Your task to perform on an android device: empty trash in the gmail app Image 0: 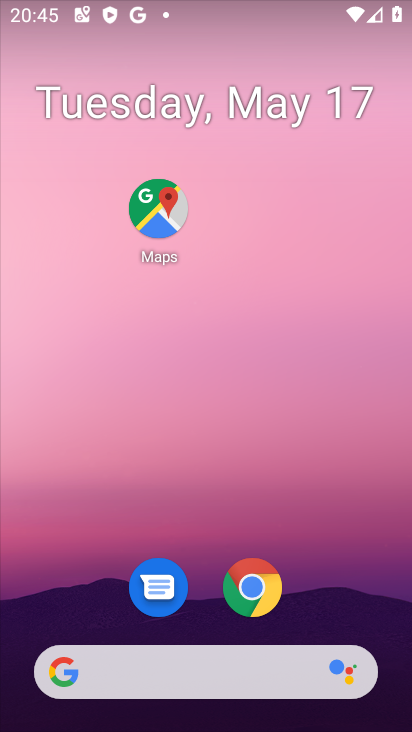
Step 0: drag from (7, 720) to (215, 261)
Your task to perform on an android device: empty trash in the gmail app Image 1: 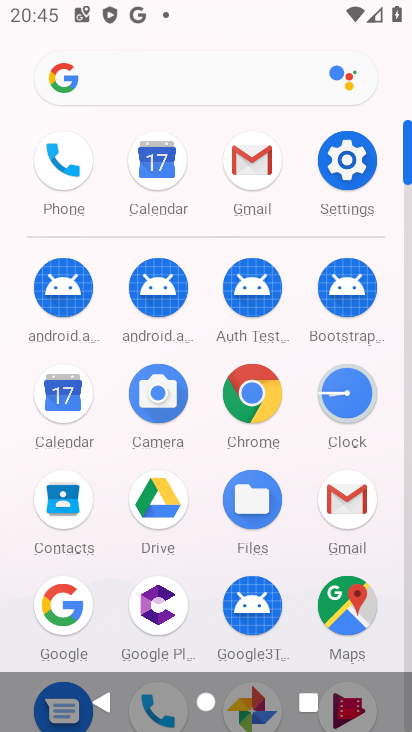
Step 1: click (245, 164)
Your task to perform on an android device: empty trash in the gmail app Image 2: 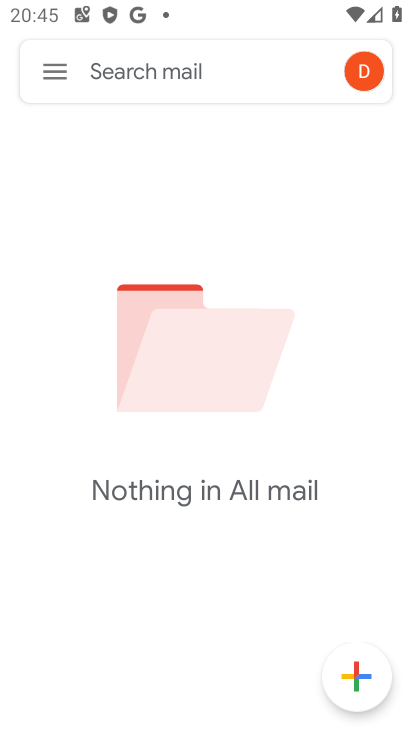
Step 2: click (41, 76)
Your task to perform on an android device: empty trash in the gmail app Image 3: 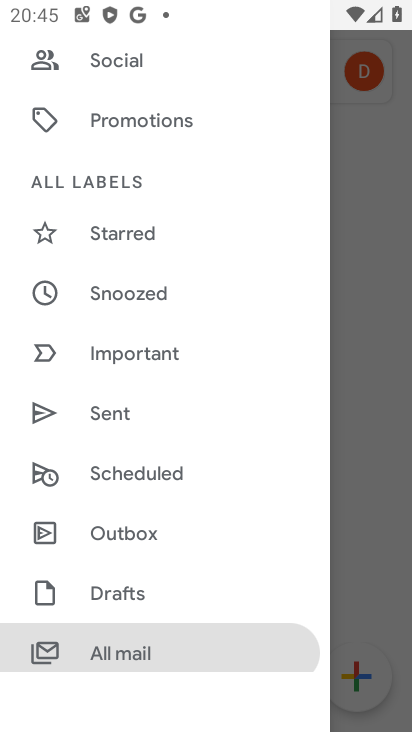
Step 3: drag from (179, 87) to (71, 629)
Your task to perform on an android device: empty trash in the gmail app Image 4: 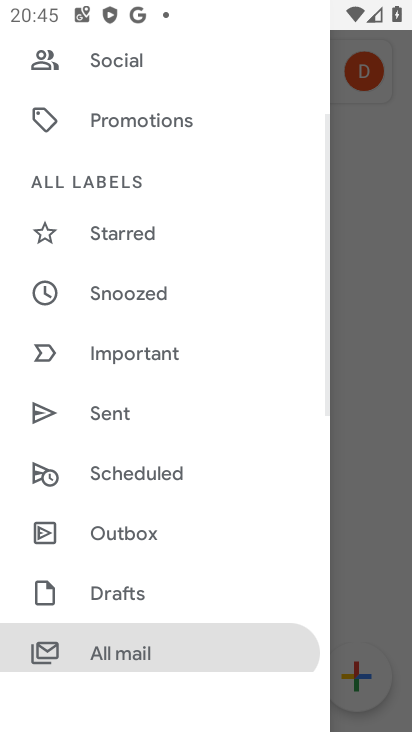
Step 4: drag from (170, 150) to (91, 596)
Your task to perform on an android device: empty trash in the gmail app Image 5: 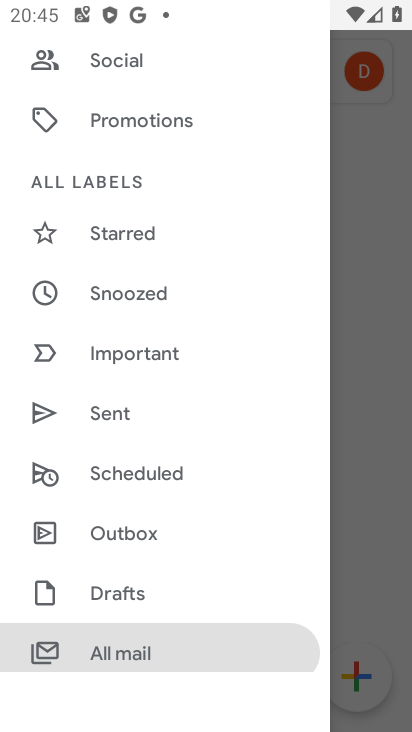
Step 5: drag from (160, 619) to (229, 153)
Your task to perform on an android device: empty trash in the gmail app Image 6: 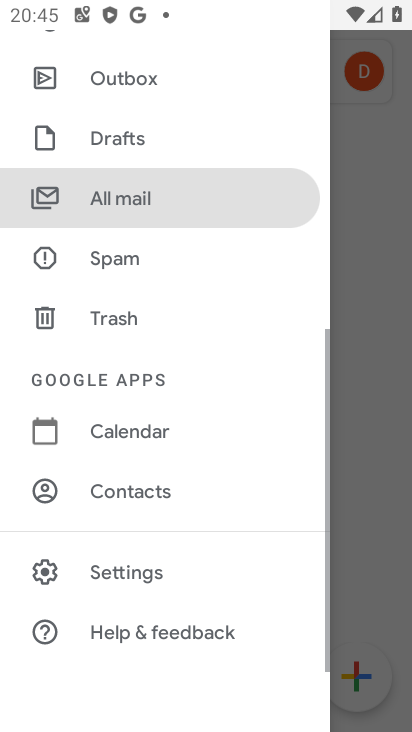
Step 6: drag from (63, 201) to (55, 605)
Your task to perform on an android device: empty trash in the gmail app Image 7: 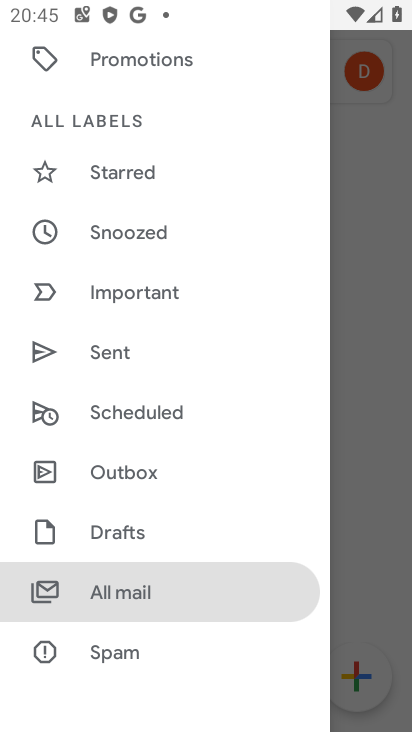
Step 7: drag from (117, 637) to (204, 158)
Your task to perform on an android device: empty trash in the gmail app Image 8: 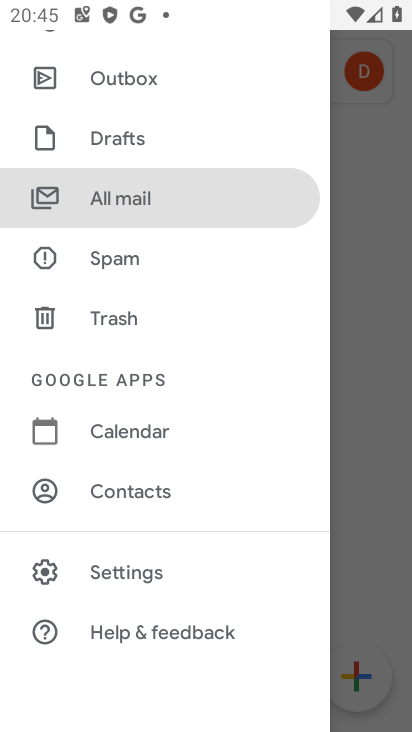
Step 8: click (119, 307)
Your task to perform on an android device: empty trash in the gmail app Image 9: 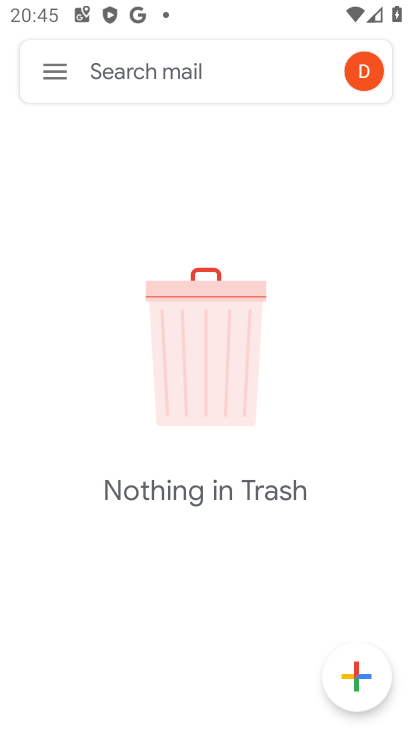
Step 9: task complete